Your task to perform on an android device: Open privacy settings Image 0: 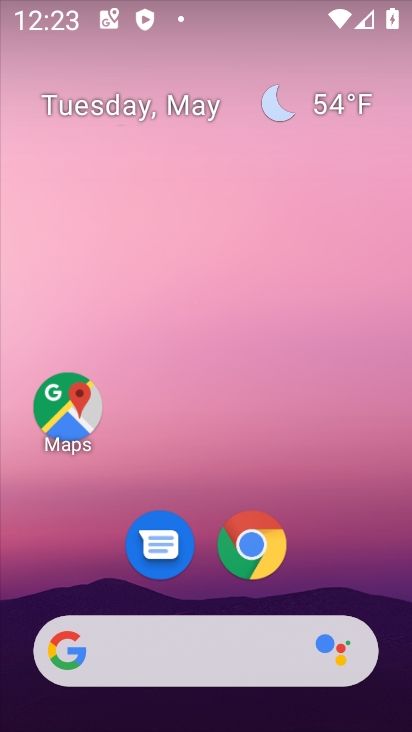
Step 0: drag from (354, 596) to (301, 87)
Your task to perform on an android device: Open privacy settings Image 1: 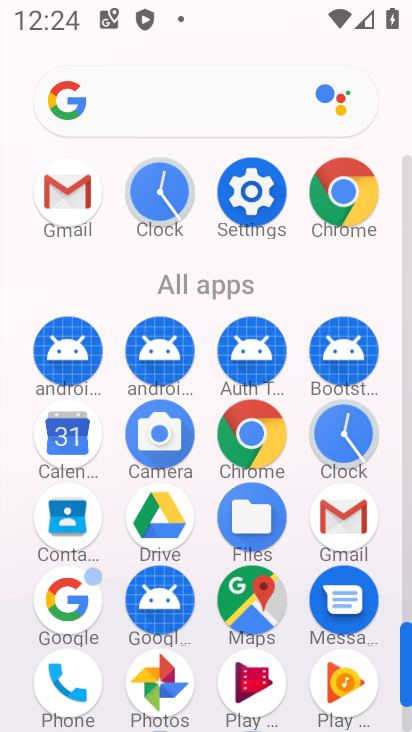
Step 1: click (241, 200)
Your task to perform on an android device: Open privacy settings Image 2: 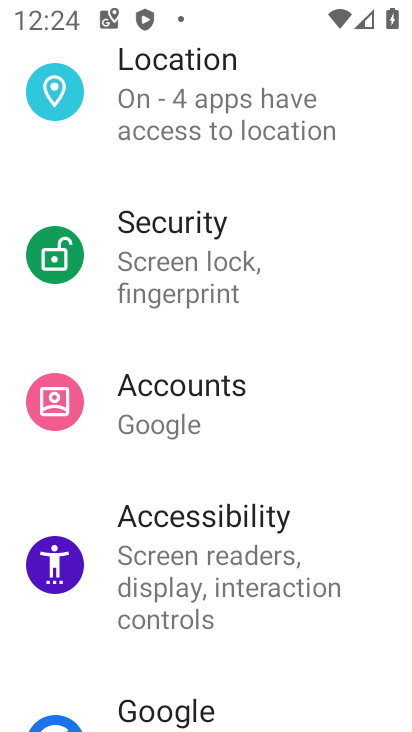
Step 2: drag from (252, 587) to (236, 280)
Your task to perform on an android device: Open privacy settings Image 3: 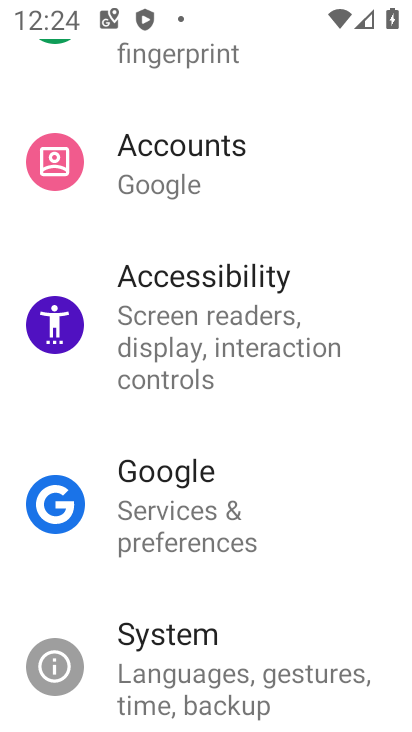
Step 3: drag from (262, 658) to (148, 708)
Your task to perform on an android device: Open privacy settings Image 4: 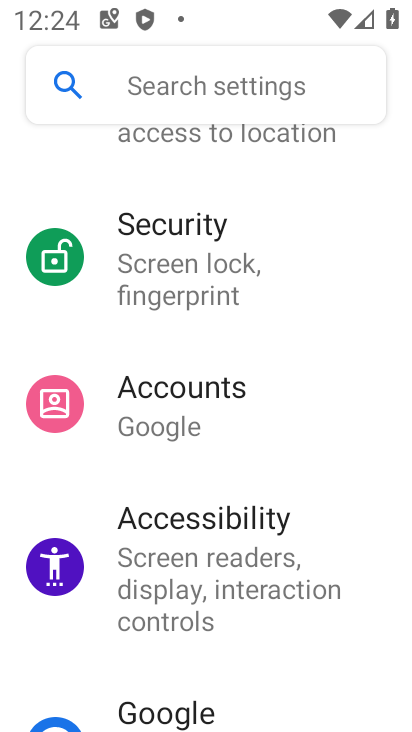
Step 4: drag from (151, 300) to (161, 725)
Your task to perform on an android device: Open privacy settings Image 5: 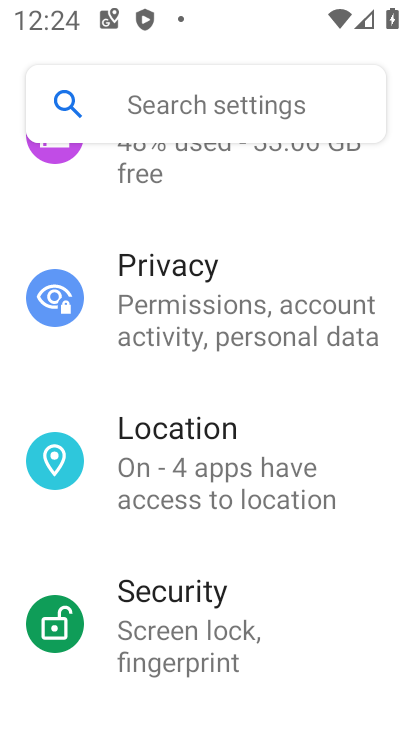
Step 5: click (160, 315)
Your task to perform on an android device: Open privacy settings Image 6: 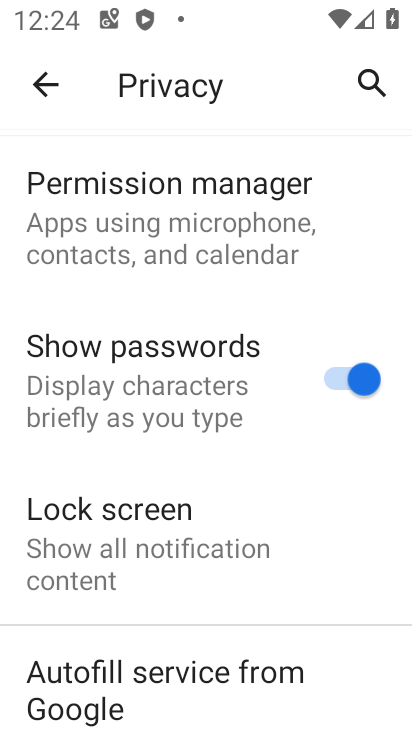
Step 6: task complete